Your task to perform on an android device: Open settings Image 0: 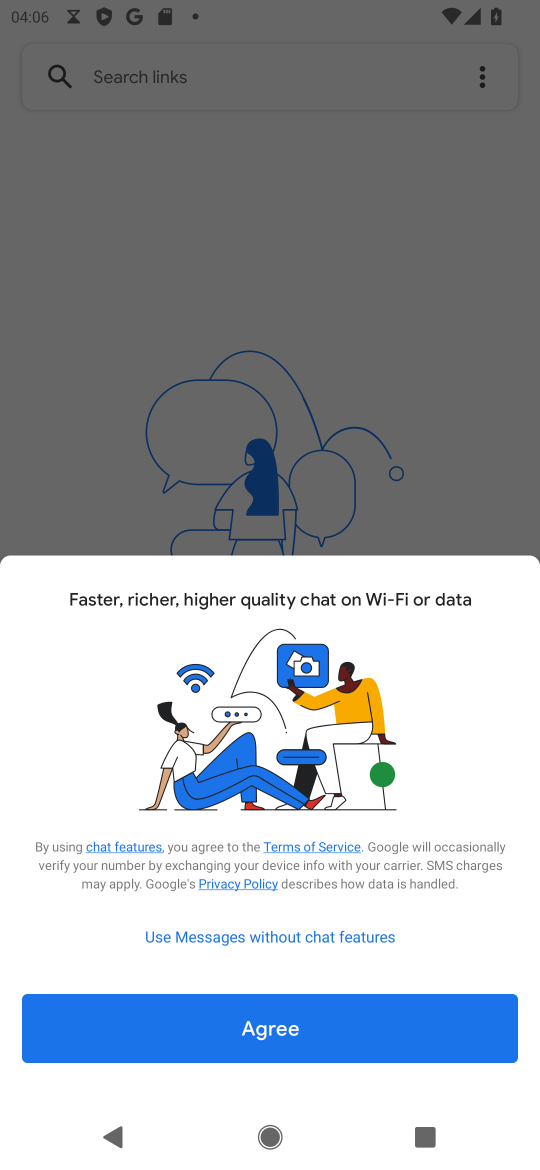
Step 0: press home button
Your task to perform on an android device: Open settings Image 1: 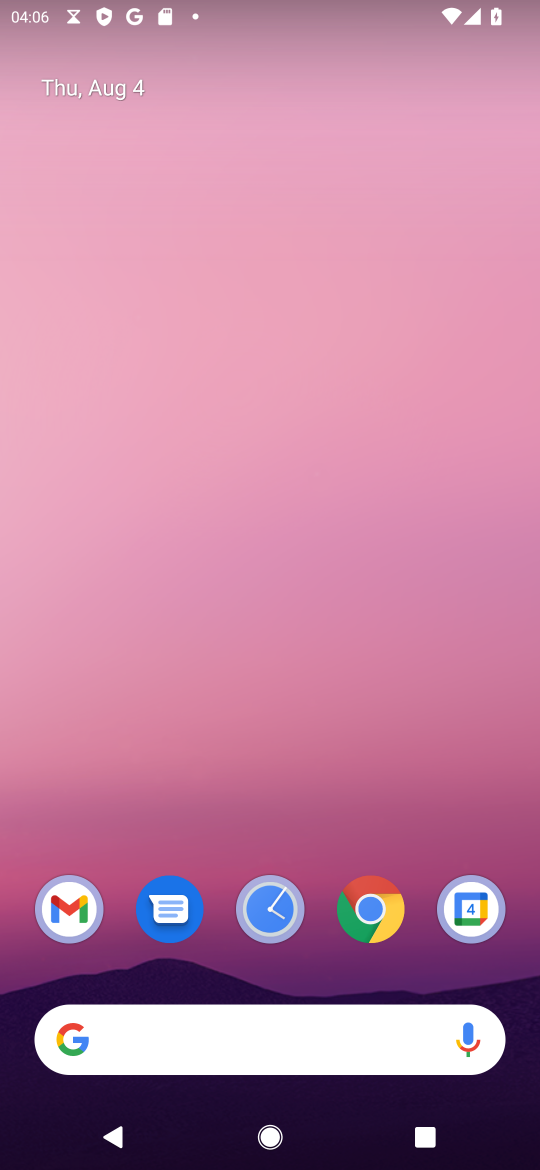
Step 1: drag from (234, 1037) to (440, 79)
Your task to perform on an android device: Open settings Image 2: 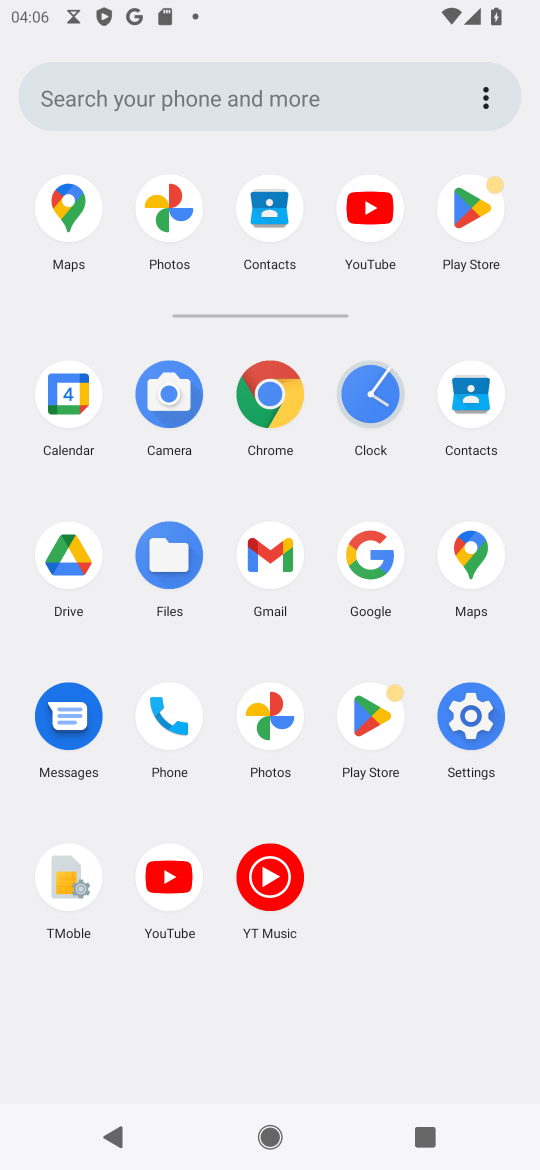
Step 2: click (472, 703)
Your task to perform on an android device: Open settings Image 3: 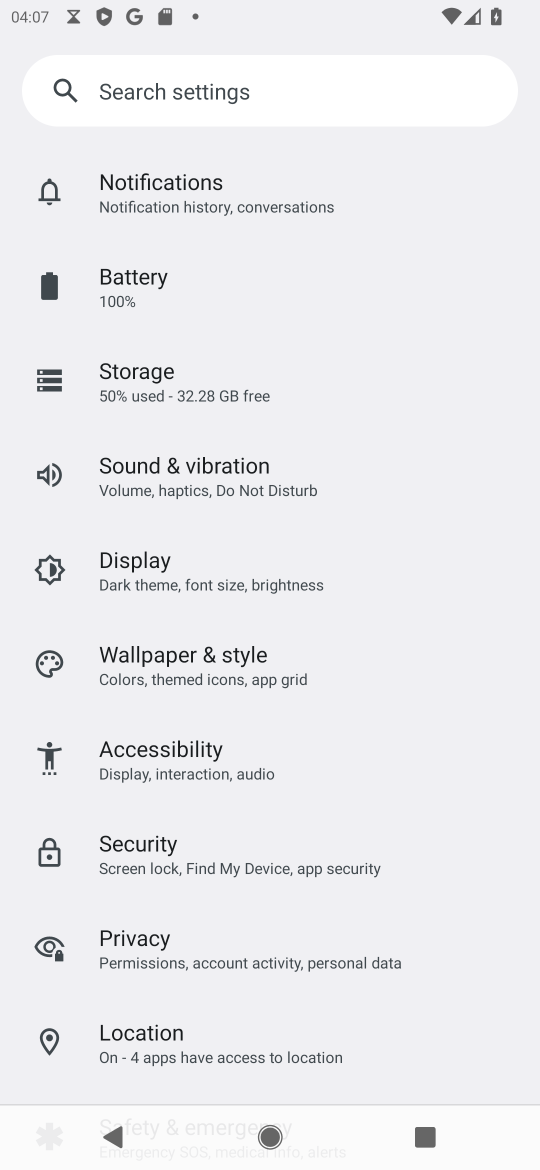
Step 3: task complete